Your task to perform on an android device: see tabs open on other devices in the chrome app Image 0: 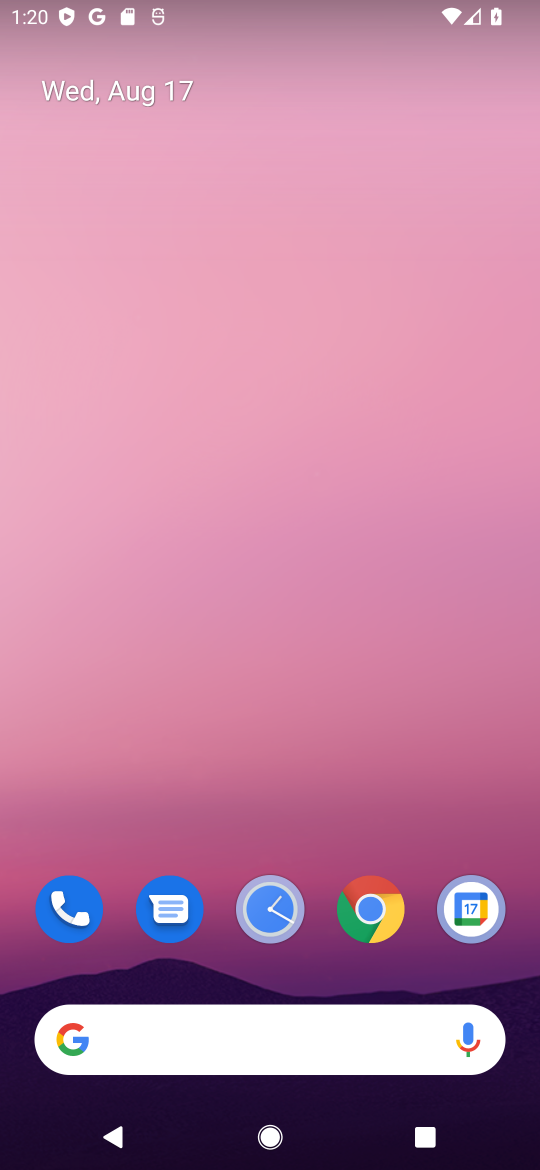
Step 0: click (371, 919)
Your task to perform on an android device: see tabs open on other devices in the chrome app Image 1: 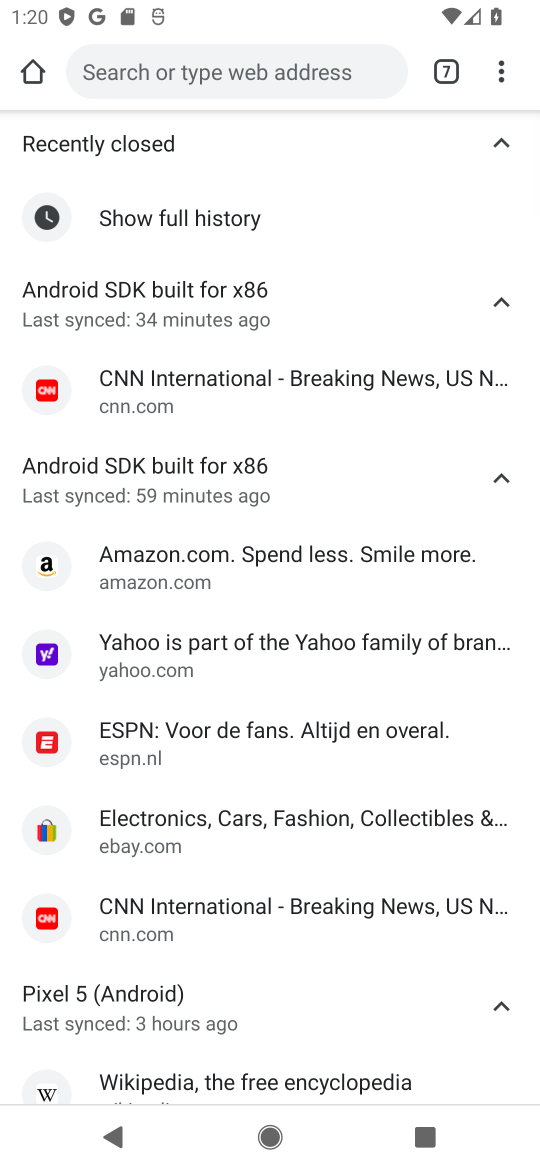
Step 1: click (495, 77)
Your task to perform on an android device: see tabs open on other devices in the chrome app Image 2: 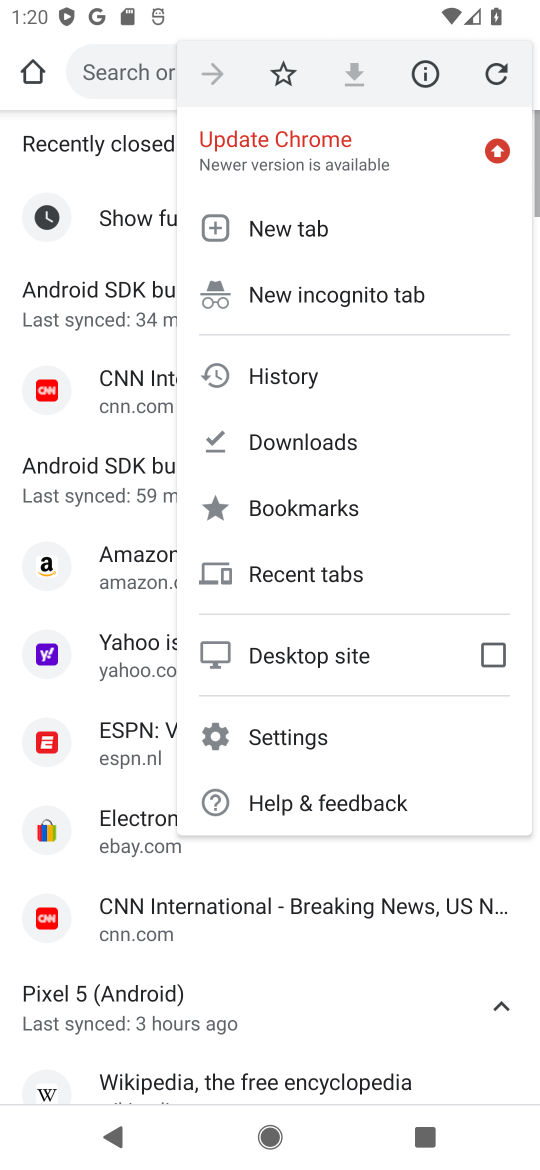
Step 2: click (285, 568)
Your task to perform on an android device: see tabs open on other devices in the chrome app Image 3: 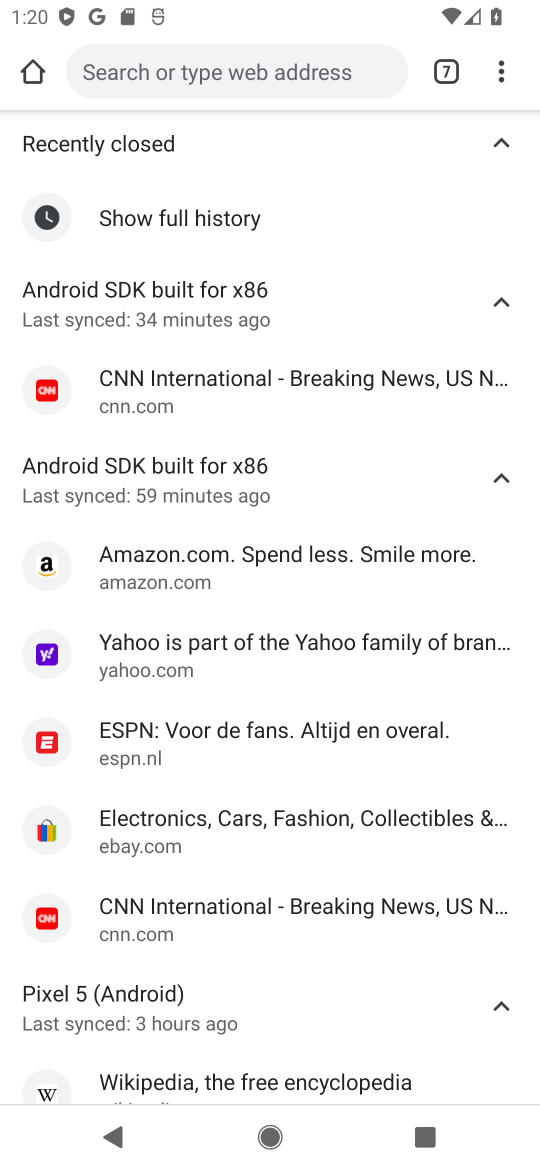
Step 3: task complete